Your task to perform on an android device: turn off airplane mode Image 0: 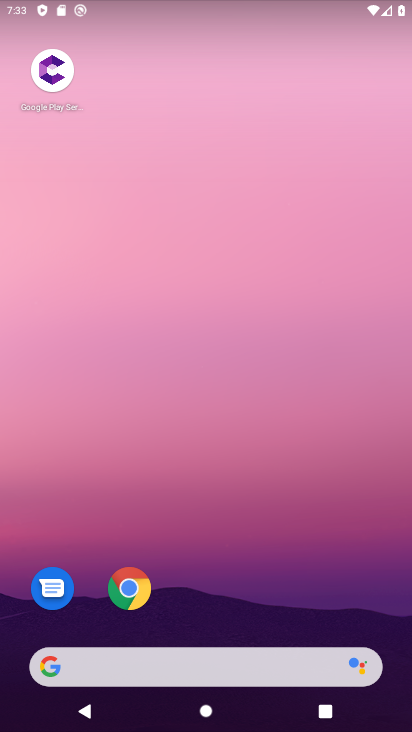
Step 0: drag from (221, 646) to (98, 4)
Your task to perform on an android device: turn off airplane mode Image 1: 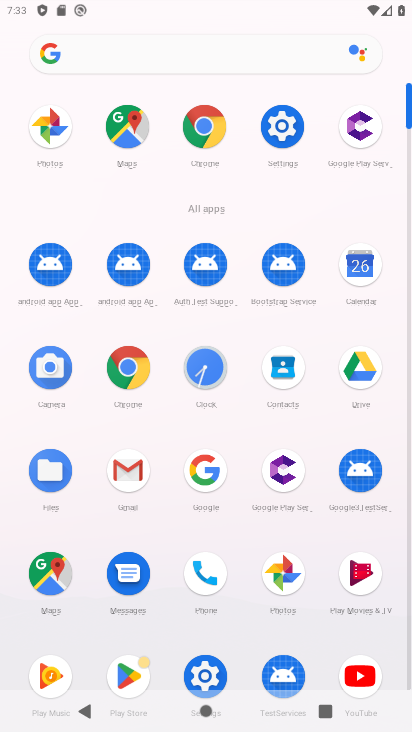
Step 1: click (285, 118)
Your task to perform on an android device: turn off airplane mode Image 2: 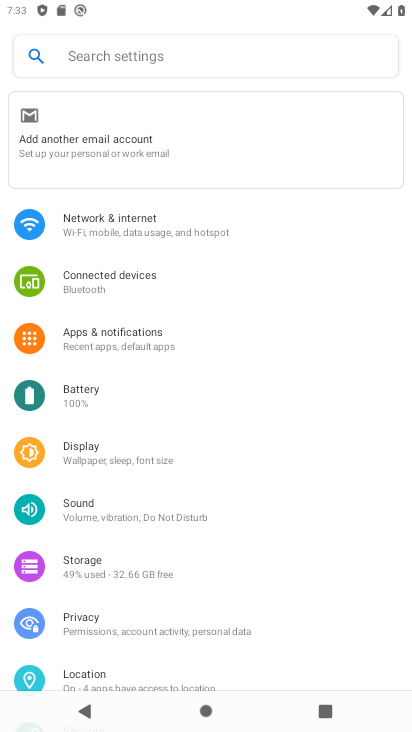
Step 2: click (63, 221)
Your task to perform on an android device: turn off airplane mode Image 3: 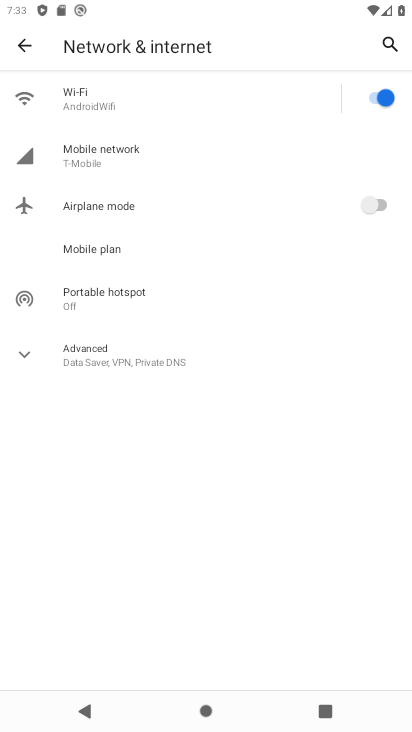
Step 3: task complete